Your task to perform on an android device: toggle notifications settings in the gmail app Image 0: 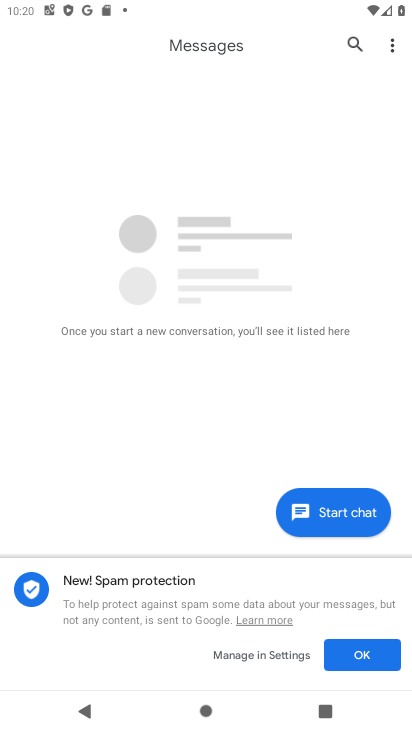
Step 0: press home button
Your task to perform on an android device: toggle notifications settings in the gmail app Image 1: 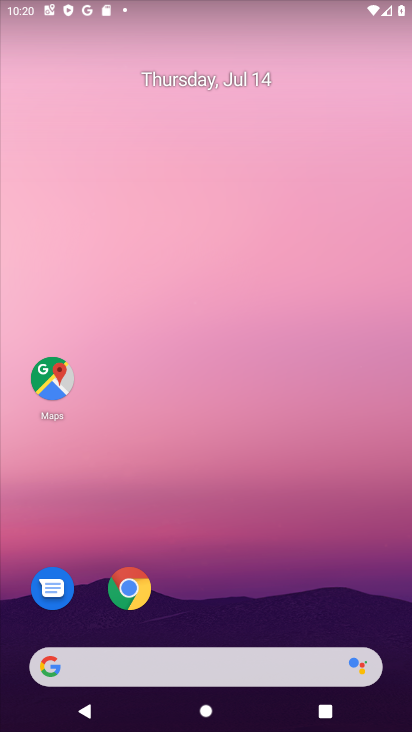
Step 1: drag from (193, 661) to (301, 135)
Your task to perform on an android device: toggle notifications settings in the gmail app Image 2: 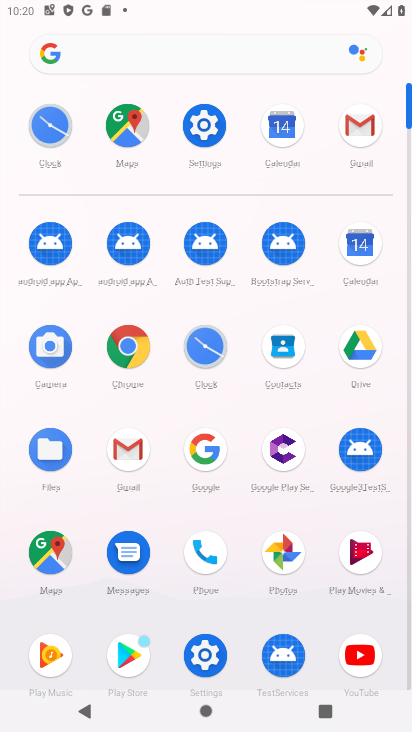
Step 2: click (365, 129)
Your task to perform on an android device: toggle notifications settings in the gmail app Image 3: 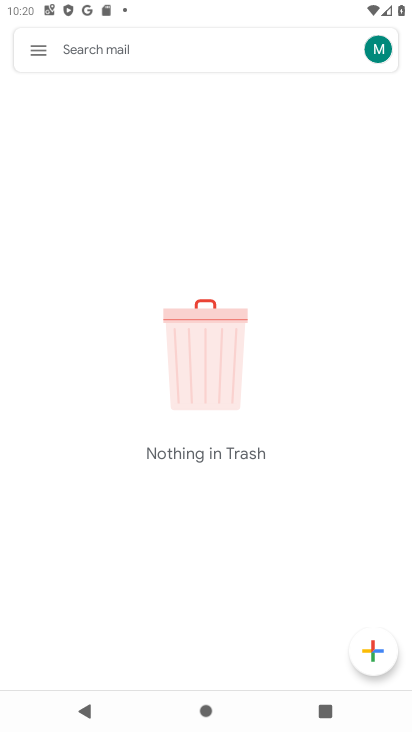
Step 3: click (36, 52)
Your task to perform on an android device: toggle notifications settings in the gmail app Image 4: 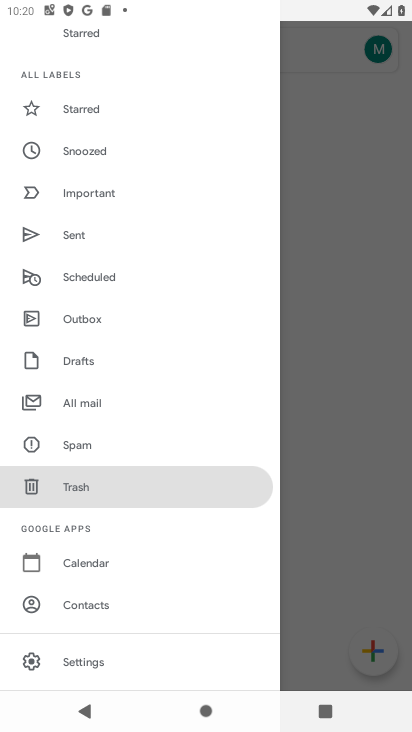
Step 4: click (103, 660)
Your task to perform on an android device: toggle notifications settings in the gmail app Image 5: 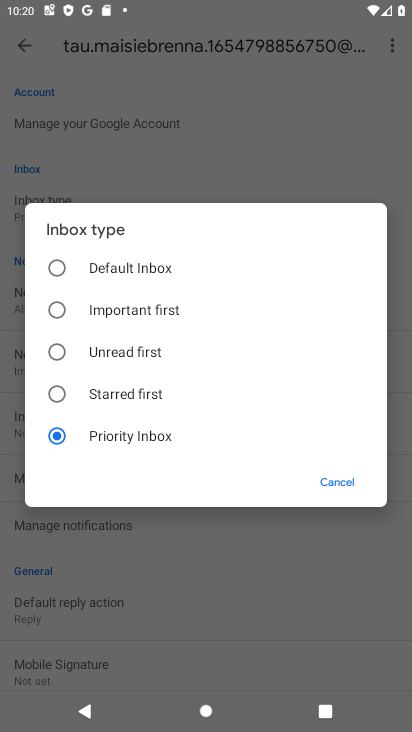
Step 5: click (346, 482)
Your task to perform on an android device: toggle notifications settings in the gmail app Image 6: 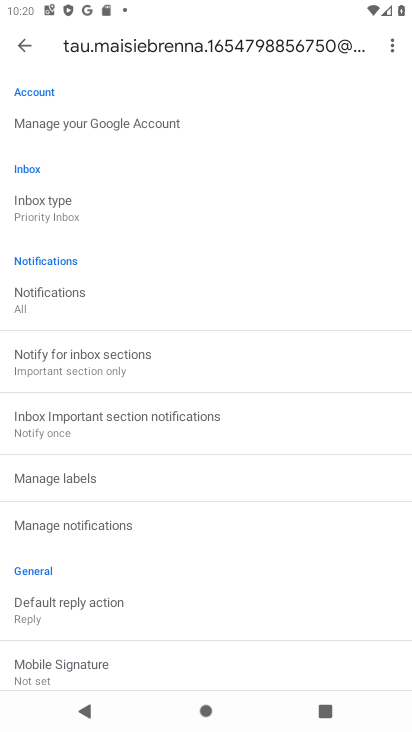
Step 6: click (71, 292)
Your task to perform on an android device: toggle notifications settings in the gmail app Image 7: 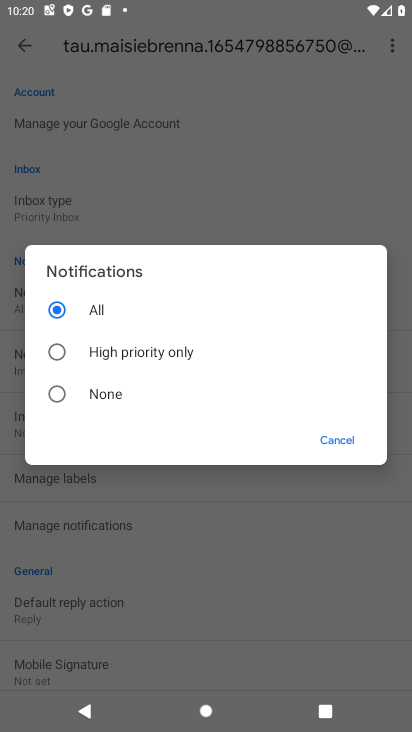
Step 7: click (63, 396)
Your task to perform on an android device: toggle notifications settings in the gmail app Image 8: 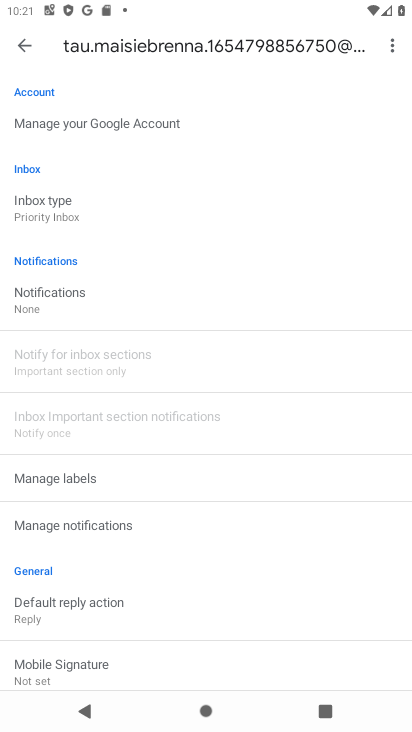
Step 8: task complete